Your task to perform on an android device: open a bookmark in the chrome app Image 0: 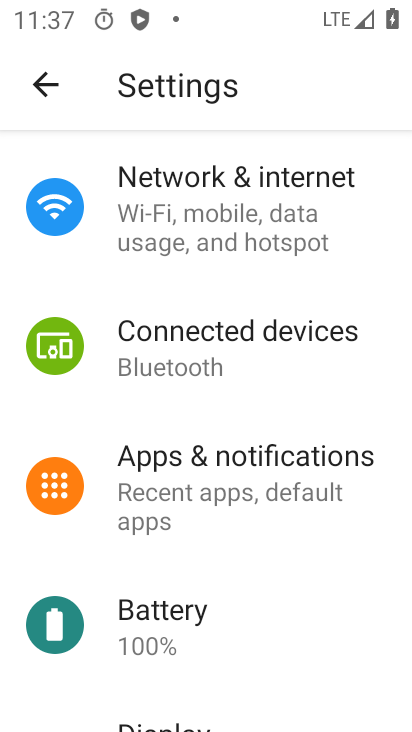
Step 0: press home button
Your task to perform on an android device: open a bookmark in the chrome app Image 1: 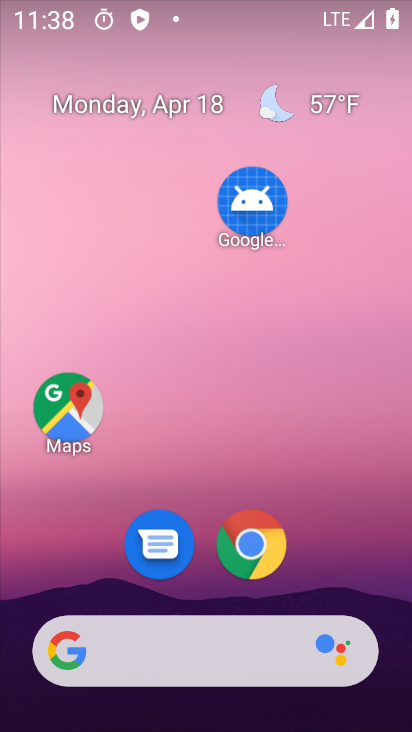
Step 1: drag from (212, 690) to (260, 254)
Your task to perform on an android device: open a bookmark in the chrome app Image 2: 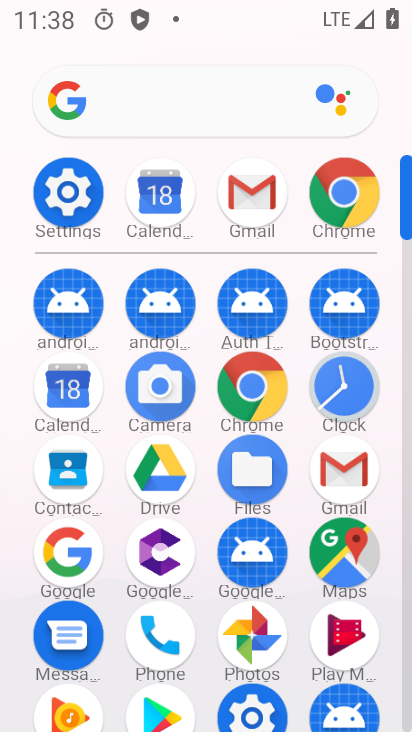
Step 2: click (260, 388)
Your task to perform on an android device: open a bookmark in the chrome app Image 3: 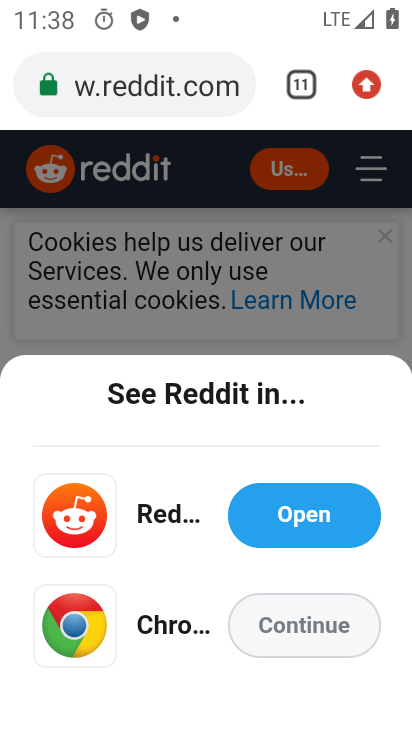
Step 3: click (385, 91)
Your task to perform on an android device: open a bookmark in the chrome app Image 4: 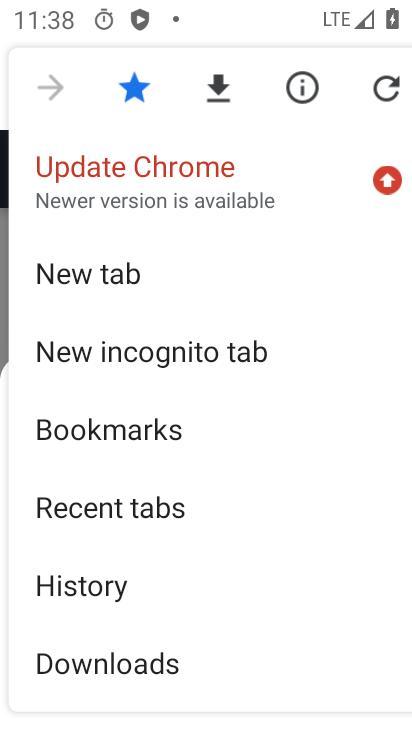
Step 4: click (136, 431)
Your task to perform on an android device: open a bookmark in the chrome app Image 5: 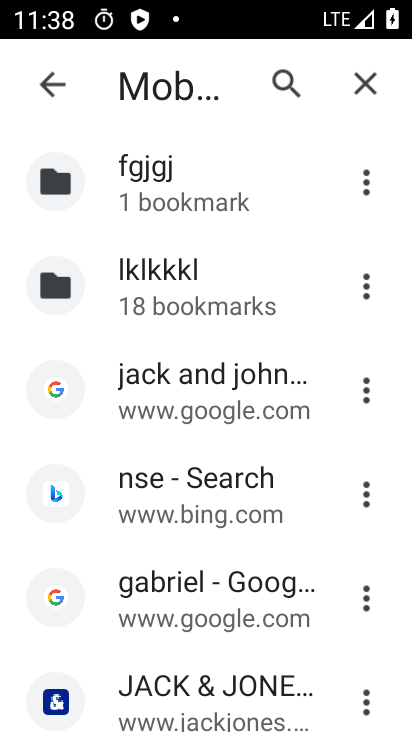
Step 5: task complete